Your task to perform on an android device: Search for Italian restaurants on Maps Image 0: 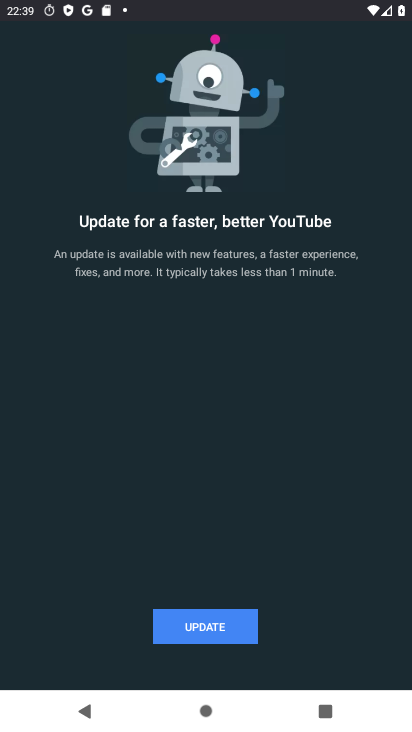
Step 0: press home button
Your task to perform on an android device: Search for Italian restaurants on Maps Image 1: 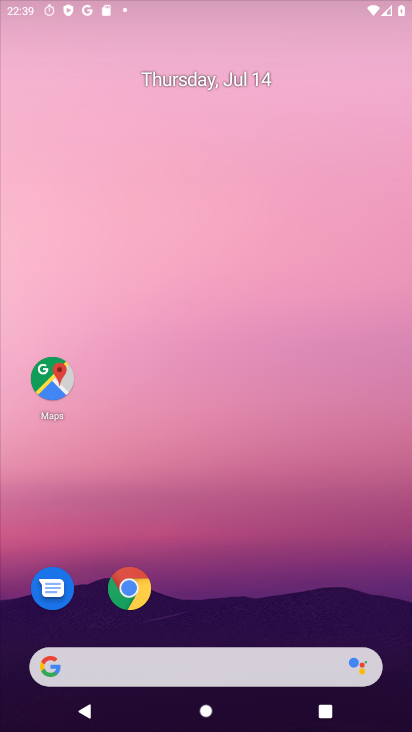
Step 1: drag from (259, 607) to (219, 136)
Your task to perform on an android device: Search for Italian restaurants on Maps Image 2: 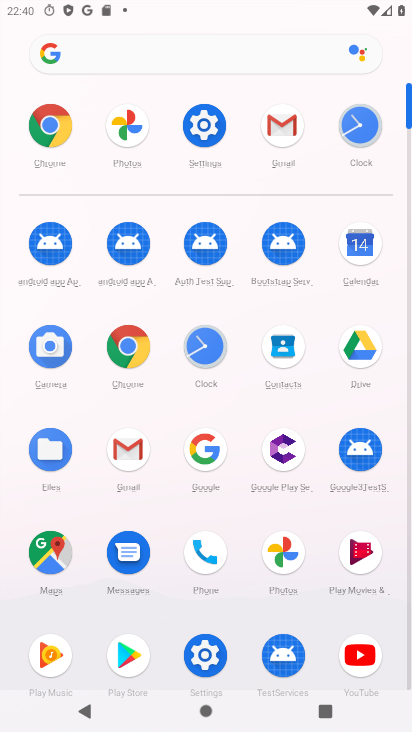
Step 2: click (54, 565)
Your task to perform on an android device: Search for Italian restaurants on Maps Image 3: 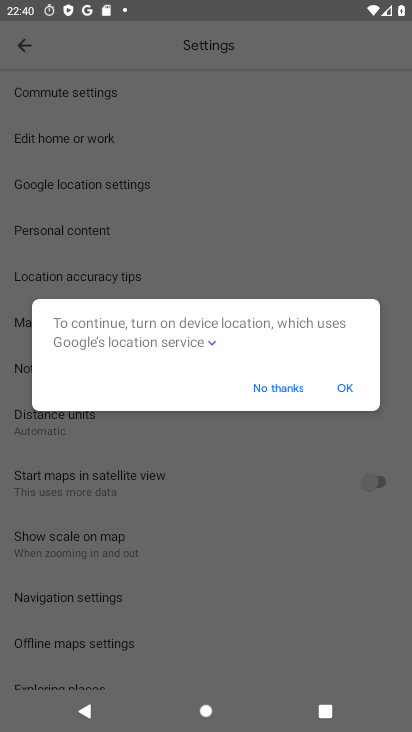
Step 3: click (287, 386)
Your task to perform on an android device: Search for Italian restaurants on Maps Image 4: 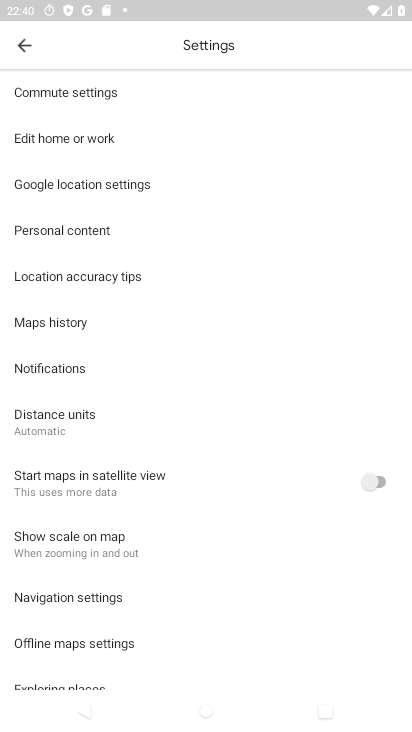
Step 4: press back button
Your task to perform on an android device: Search for Italian restaurants on Maps Image 5: 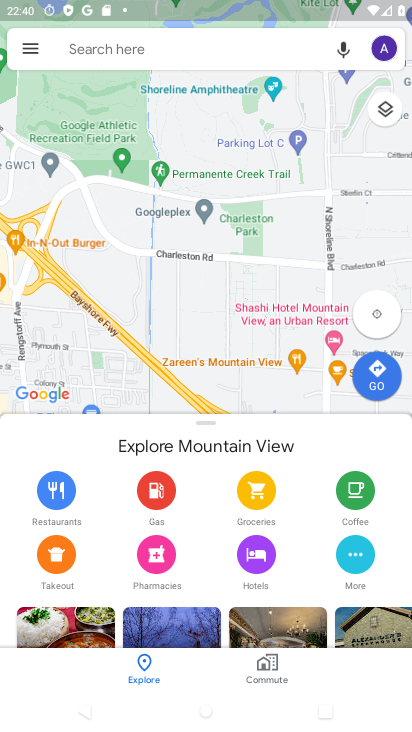
Step 5: click (174, 45)
Your task to perform on an android device: Search for Italian restaurants on Maps Image 6: 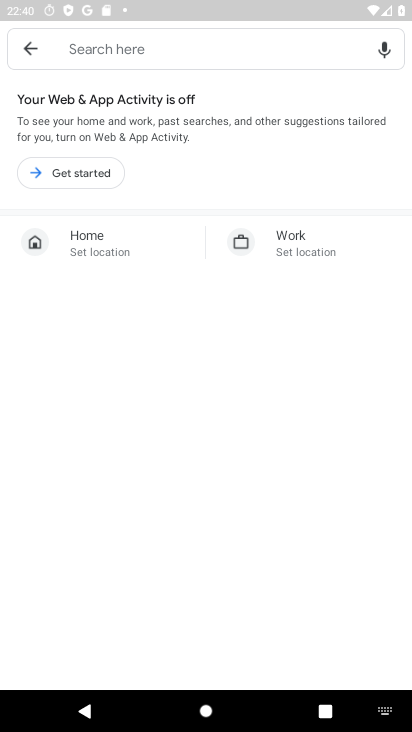
Step 6: type "italian restaurent"
Your task to perform on an android device: Search for Italian restaurants on Maps Image 7: 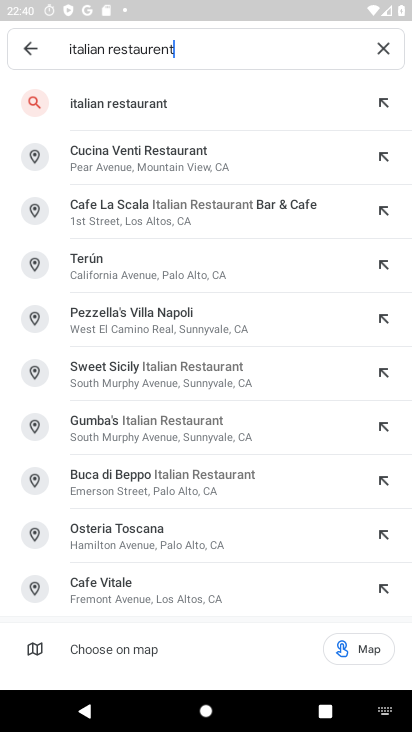
Step 7: click (172, 90)
Your task to perform on an android device: Search for Italian restaurants on Maps Image 8: 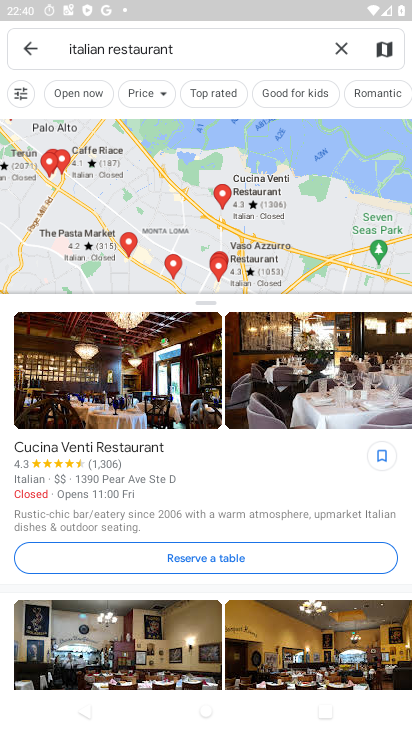
Step 8: task complete